Your task to perform on an android device: Open Google Chrome and open the bookmarks view Image 0: 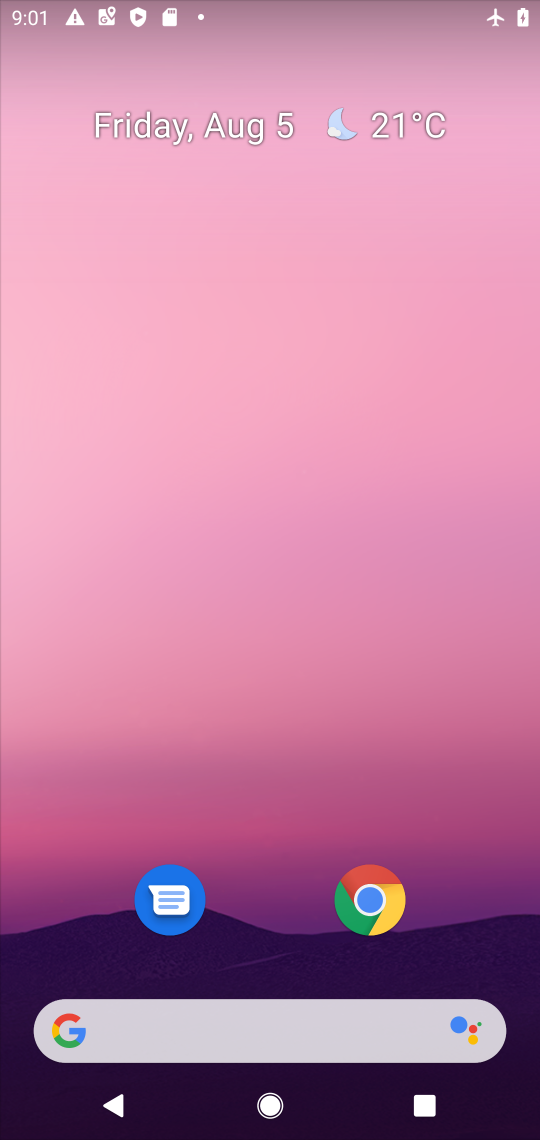
Step 0: press home button
Your task to perform on an android device: Open Google Chrome and open the bookmarks view Image 1: 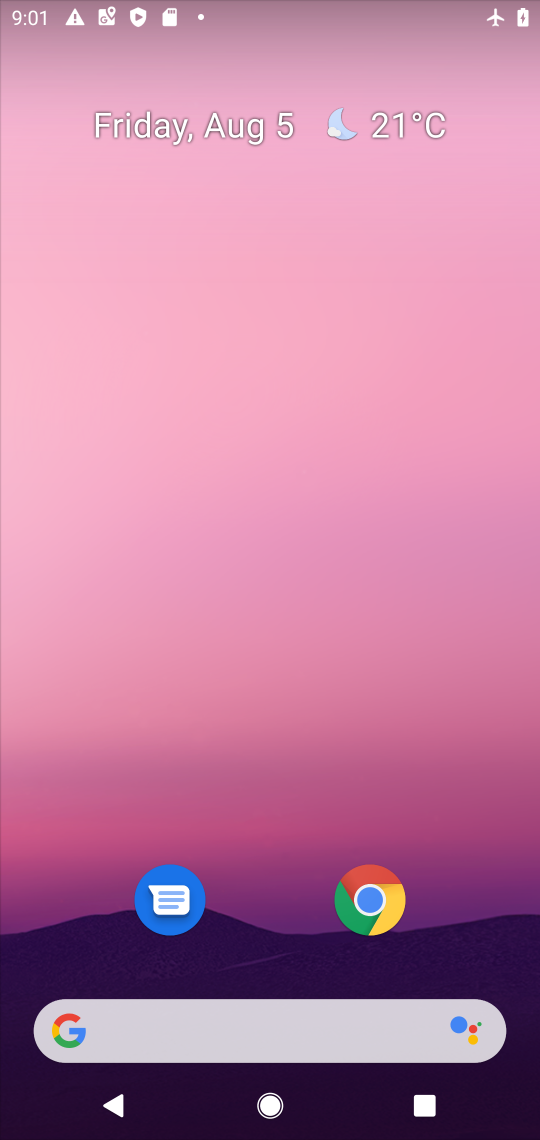
Step 1: click (370, 915)
Your task to perform on an android device: Open Google Chrome and open the bookmarks view Image 2: 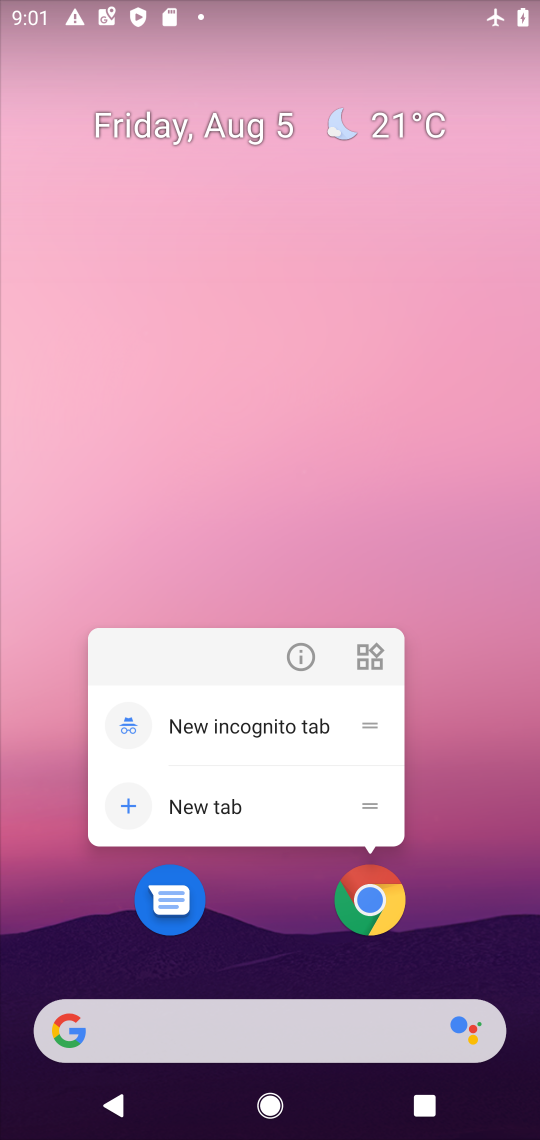
Step 2: click (370, 915)
Your task to perform on an android device: Open Google Chrome and open the bookmarks view Image 3: 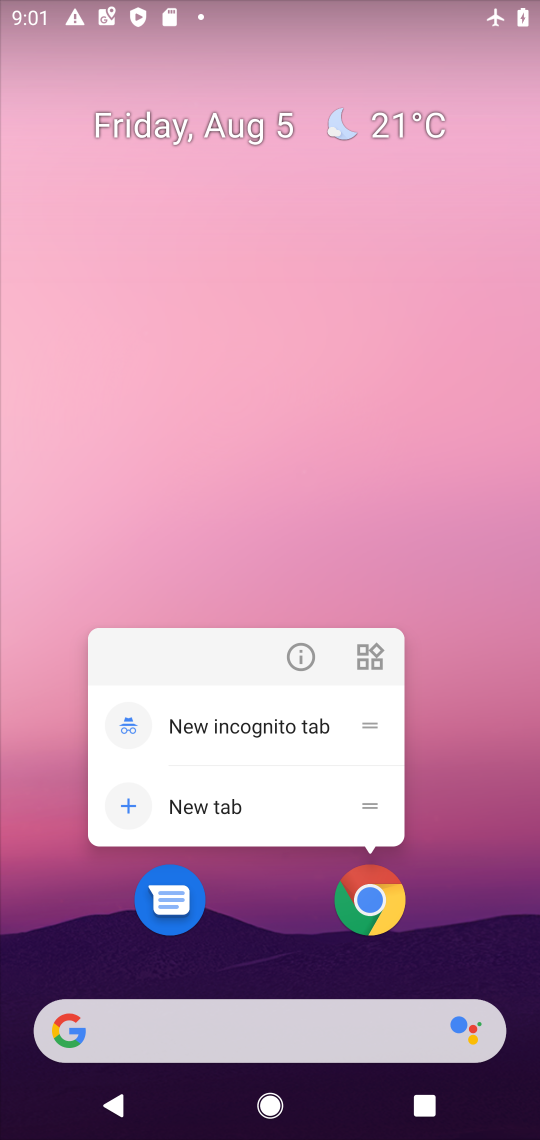
Step 3: click (370, 915)
Your task to perform on an android device: Open Google Chrome and open the bookmarks view Image 4: 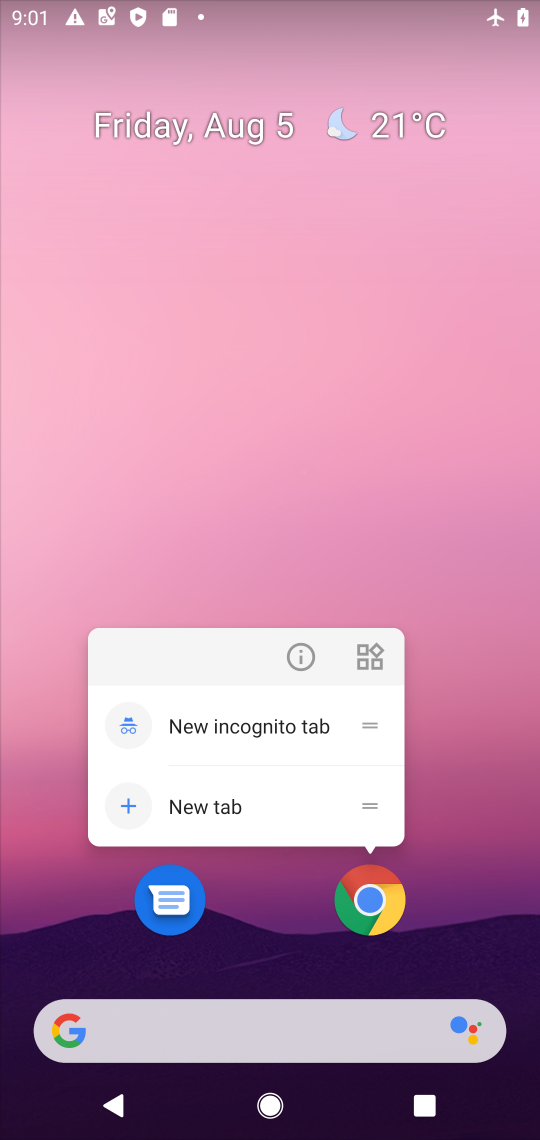
Step 4: click (370, 915)
Your task to perform on an android device: Open Google Chrome and open the bookmarks view Image 5: 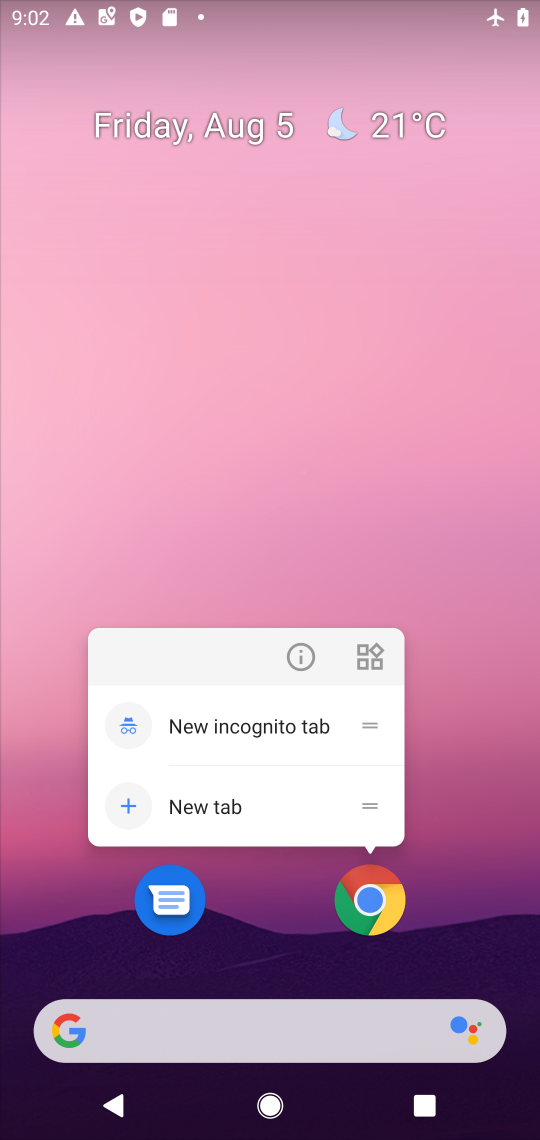
Step 5: click (292, 1091)
Your task to perform on an android device: Open Google Chrome and open the bookmarks view Image 6: 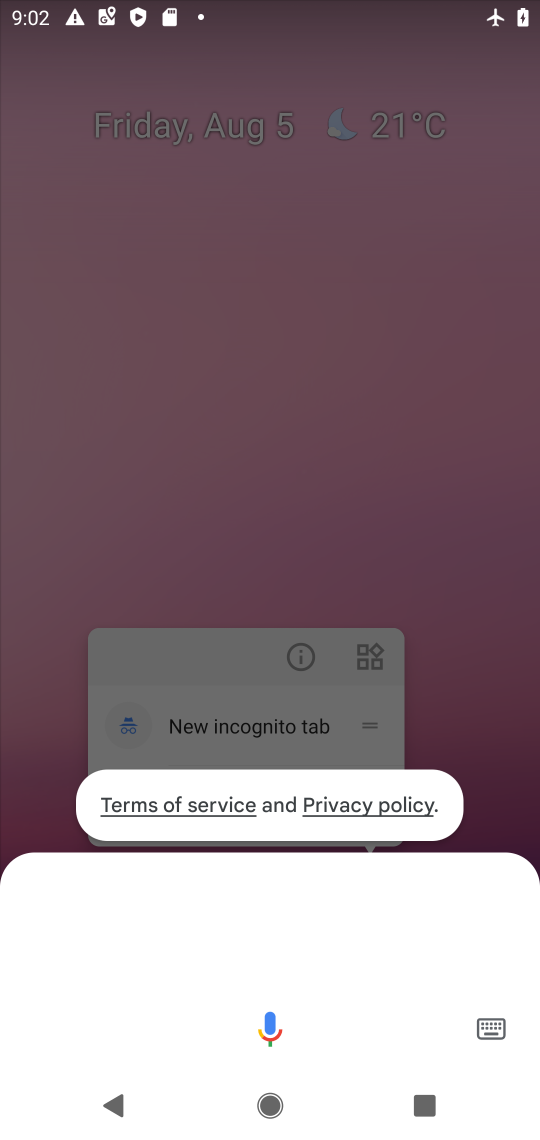
Step 6: press home button
Your task to perform on an android device: Open Google Chrome and open the bookmarks view Image 7: 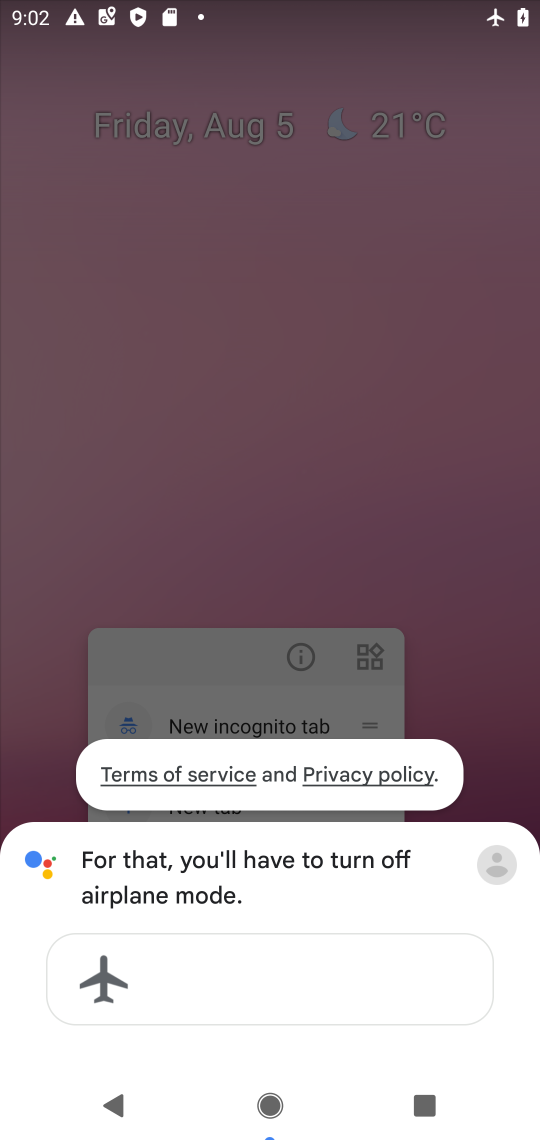
Step 7: press home button
Your task to perform on an android device: Open Google Chrome and open the bookmarks view Image 8: 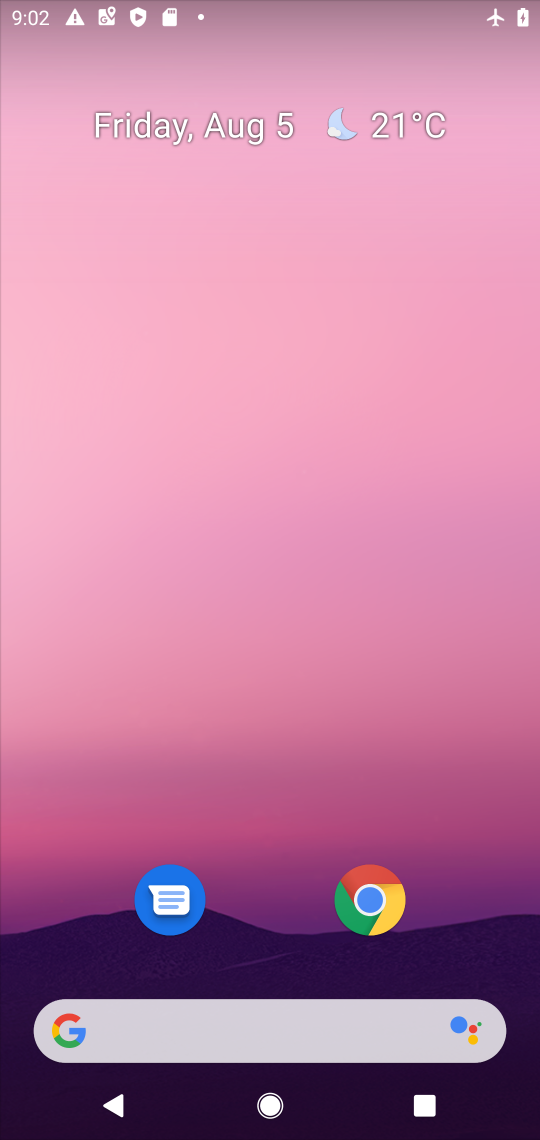
Step 8: click (396, 903)
Your task to perform on an android device: Open Google Chrome and open the bookmarks view Image 9: 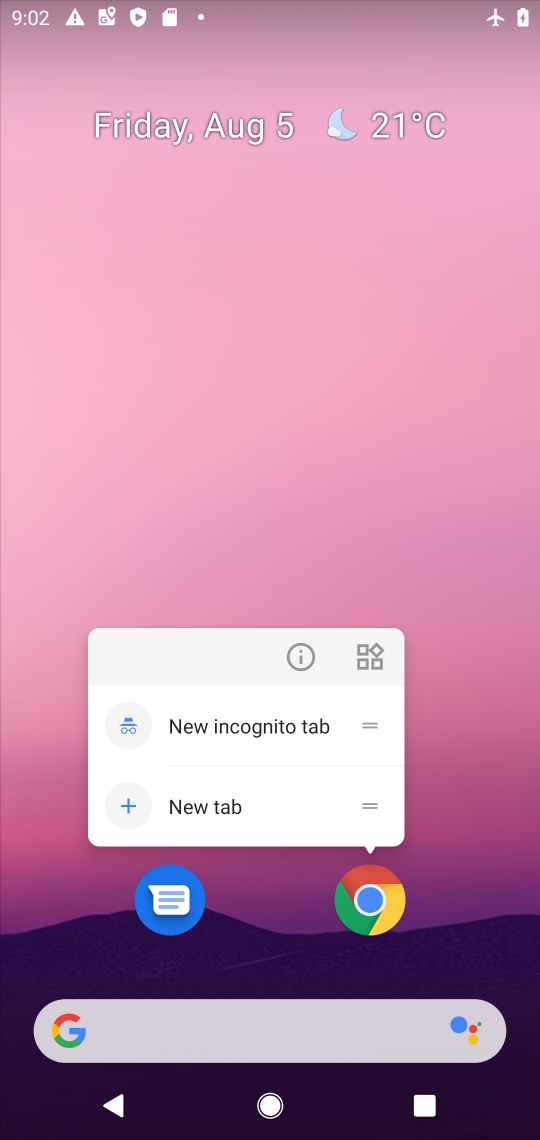
Step 9: click (396, 903)
Your task to perform on an android device: Open Google Chrome and open the bookmarks view Image 10: 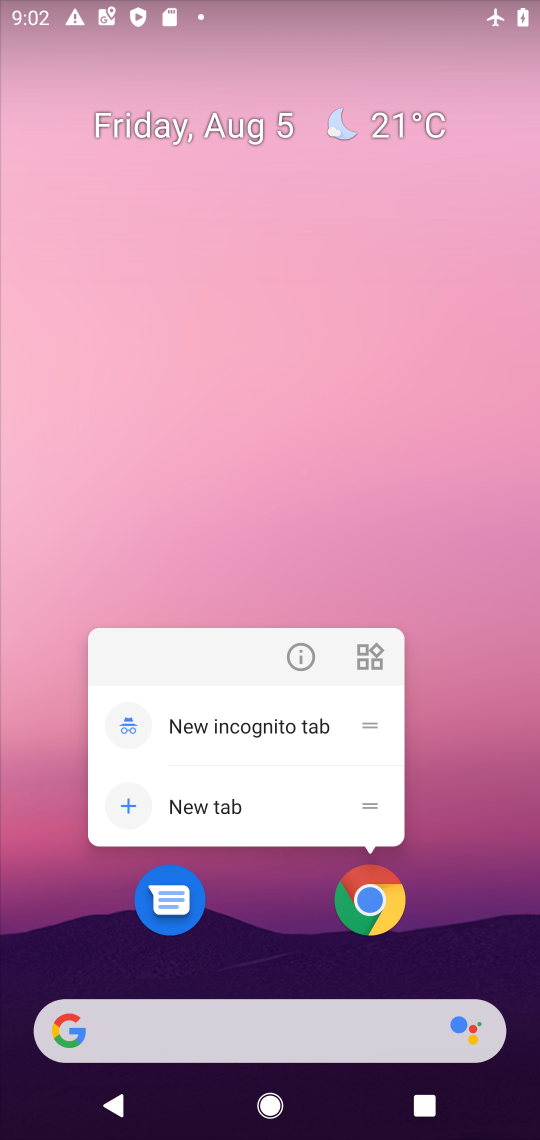
Step 10: click (396, 903)
Your task to perform on an android device: Open Google Chrome and open the bookmarks view Image 11: 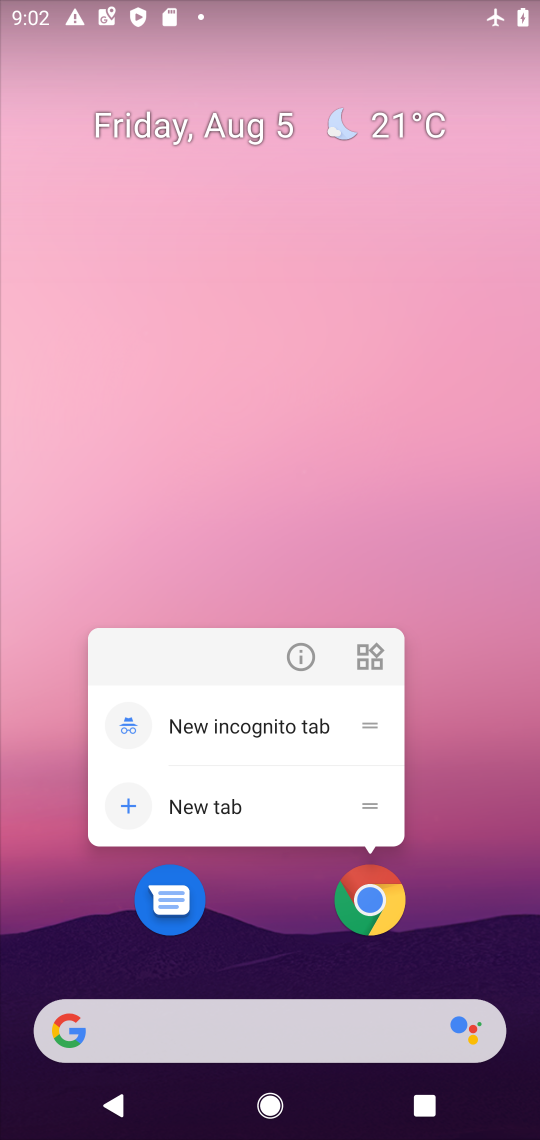
Step 11: click (369, 913)
Your task to perform on an android device: Open Google Chrome and open the bookmarks view Image 12: 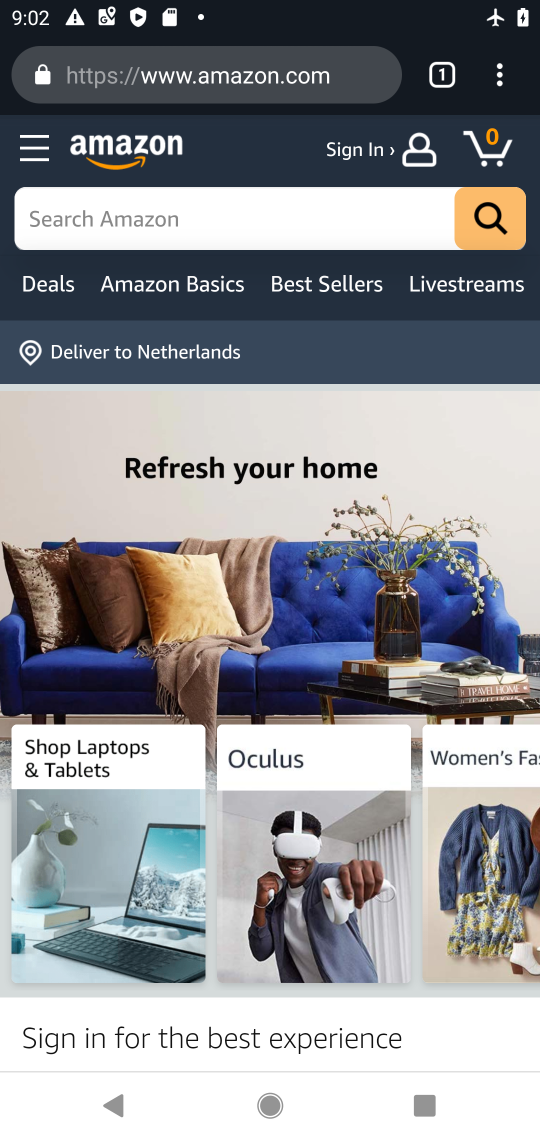
Step 12: task complete